Your task to perform on an android device: turn off data saver in the chrome app Image 0: 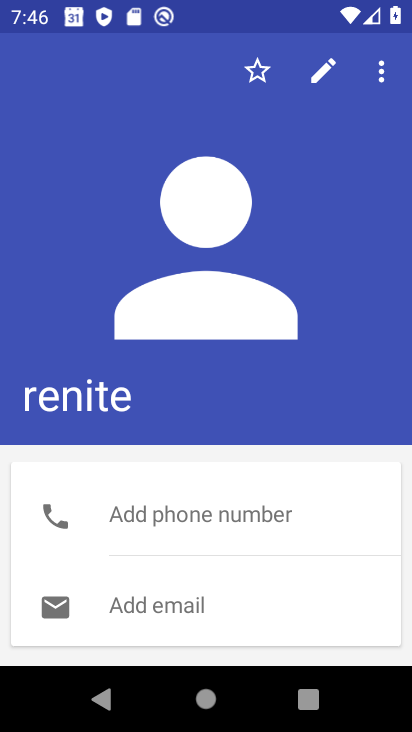
Step 0: press home button
Your task to perform on an android device: turn off data saver in the chrome app Image 1: 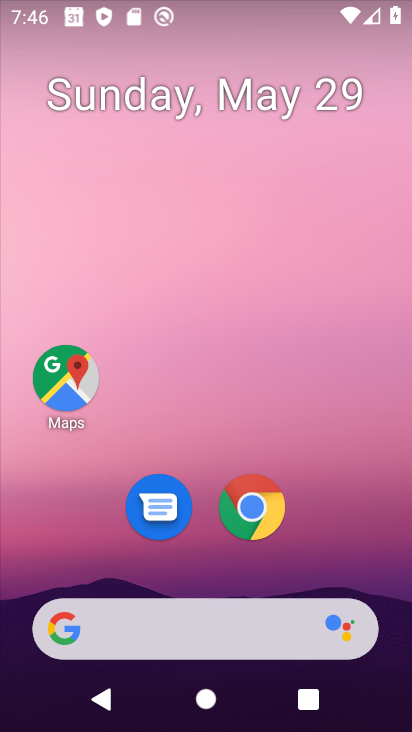
Step 1: click (249, 502)
Your task to perform on an android device: turn off data saver in the chrome app Image 2: 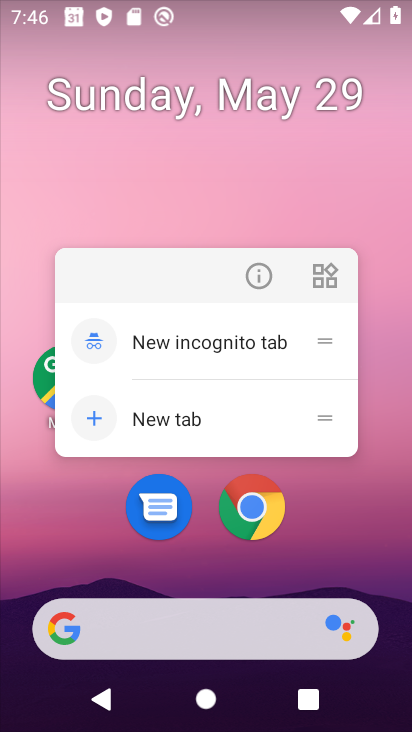
Step 2: click (249, 502)
Your task to perform on an android device: turn off data saver in the chrome app Image 3: 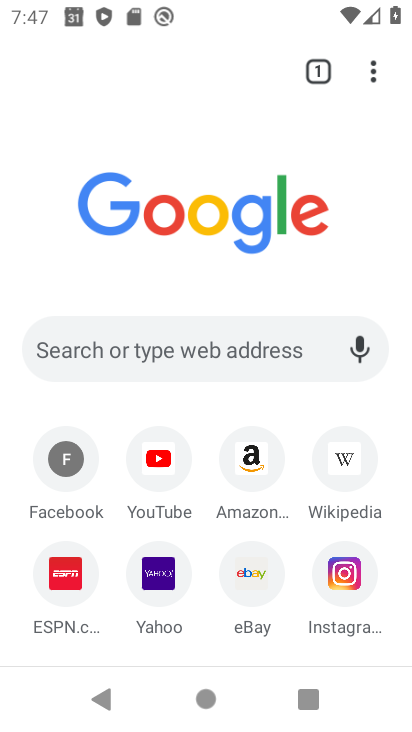
Step 3: drag from (379, 67) to (203, 481)
Your task to perform on an android device: turn off data saver in the chrome app Image 4: 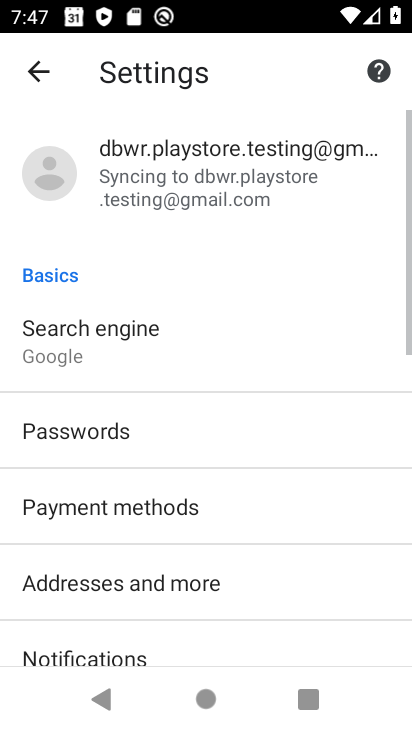
Step 4: drag from (254, 615) to (240, 390)
Your task to perform on an android device: turn off data saver in the chrome app Image 5: 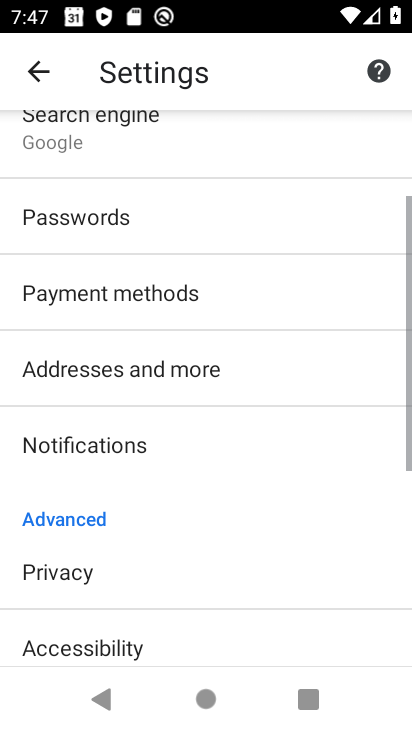
Step 5: drag from (271, 284) to (275, 235)
Your task to perform on an android device: turn off data saver in the chrome app Image 6: 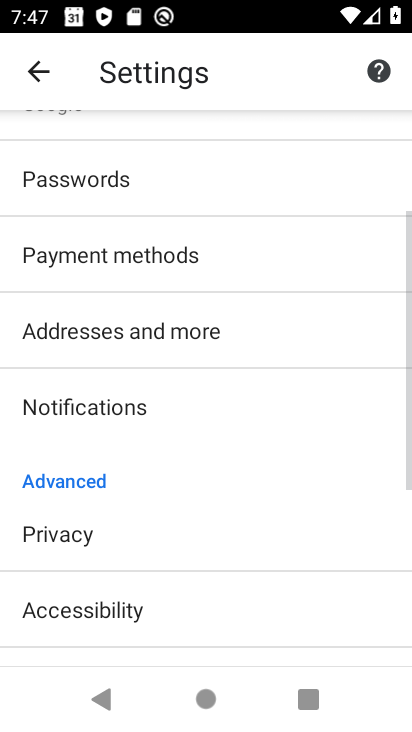
Step 6: click (330, 86)
Your task to perform on an android device: turn off data saver in the chrome app Image 7: 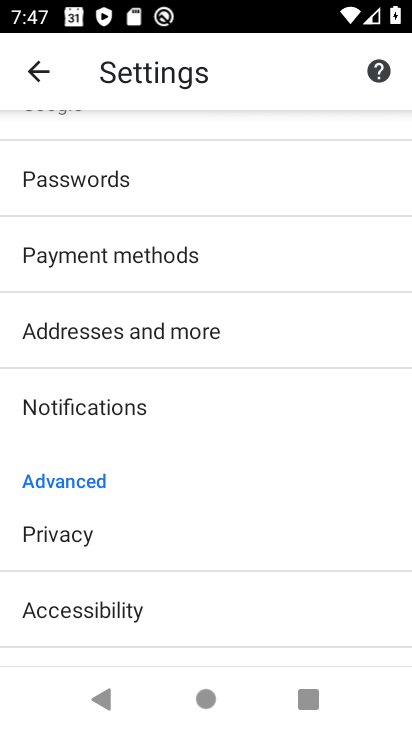
Step 7: drag from (299, 446) to (283, 143)
Your task to perform on an android device: turn off data saver in the chrome app Image 8: 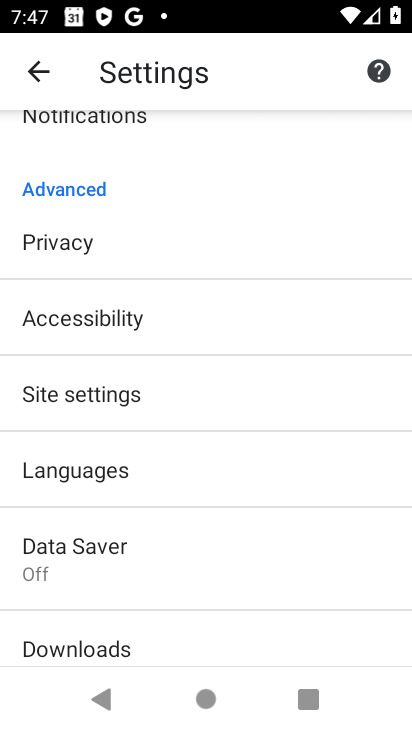
Step 8: click (122, 566)
Your task to perform on an android device: turn off data saver in the chrome app Image 9: 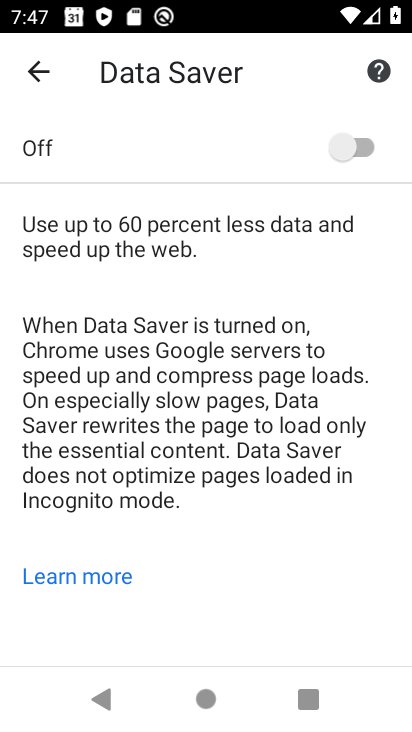
Step 9: task complete